Your task to perform on an android device: Turn on the flashlight Image 0: 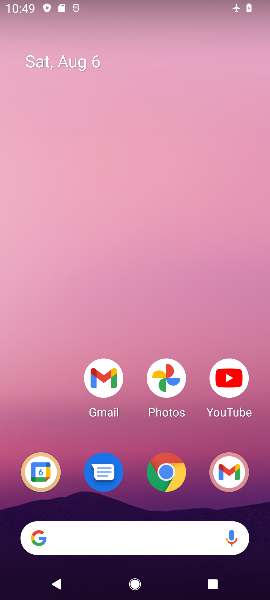
Step 0: press back button
Your task to perform on an android device: Turn on the flashlight Image 1: 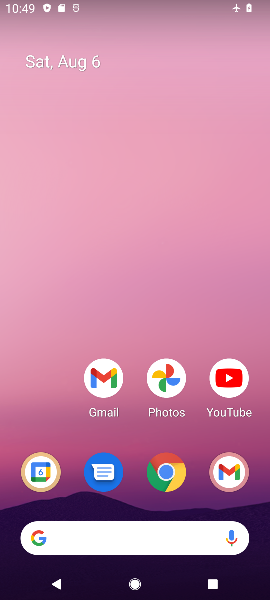
Step 1: drag from (168, 586) to (102, 92)
Your task to perform on an android device: Turn on the flashlight Image 2: 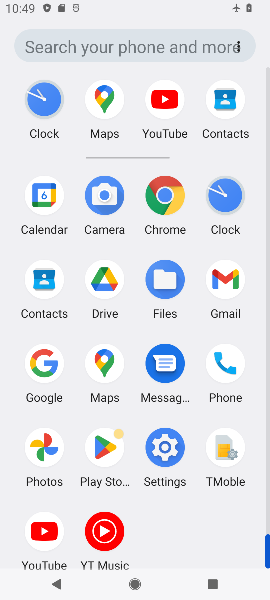
Step 2: click (163, 454)
Your task to perform on an android device: Turn on the flashlight Image 3: 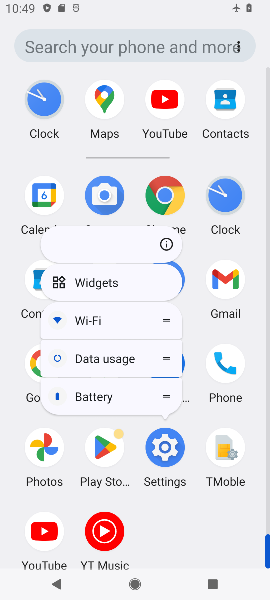
Step 3: click (163, 454)
Your task to perform on an android device: Turn on the flashlight Image 4: 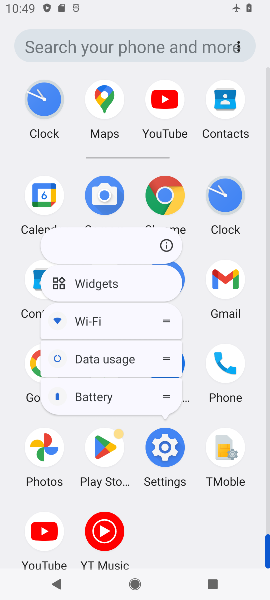
Step 4: click (163, 454)
Your task to perform on an android device: Turn on the flashlight Image 5: 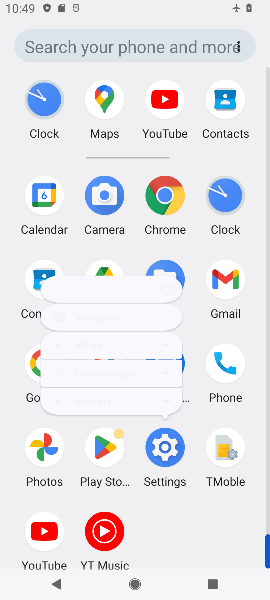
Step 5: click (163, 454)
Your task to perform on an android device: Turn on the flashlight Image 6: 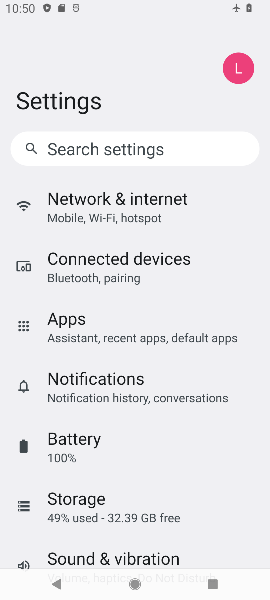
Step 6: click (74, 269)
Your task to perform on an android device: Turn on the flashlight Image 7: 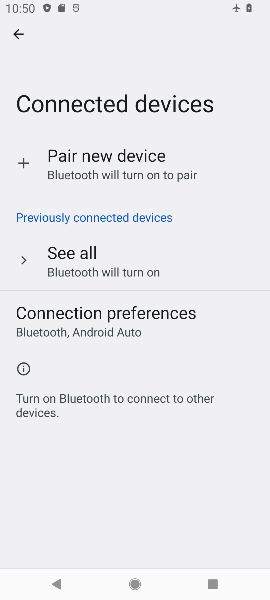
Step 7: click (19, 33)
Your task to perform on an android device: Turn on the flashlight Image 8: 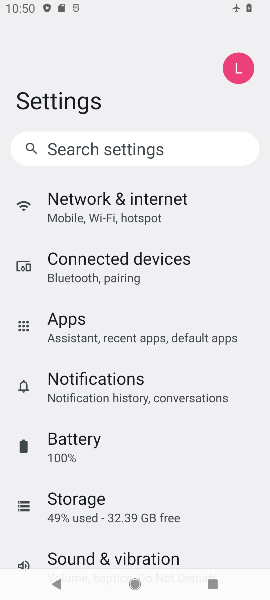
Step 8: drag from (123, 490) to (106, 262)
Your task to perform on an android device: Turn on the flashlight Image 9: 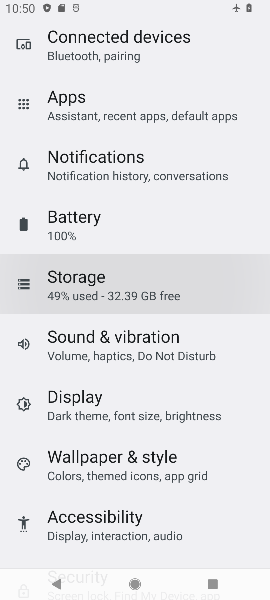
Step 9: drag from (128, 453) to (146, 308)
Your task to perform on an android device: Turn on the flashlight Image 10: 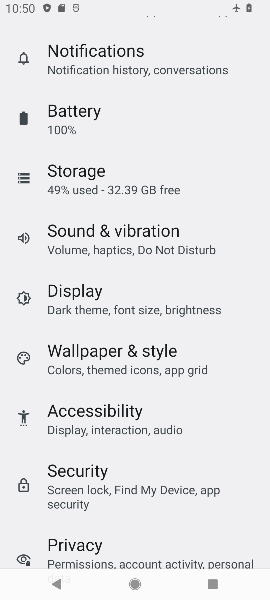
Step 10: drag from (159, 308) to (152, 229)
Your task to perform on an android device: Turn on the flashlight Image 11: 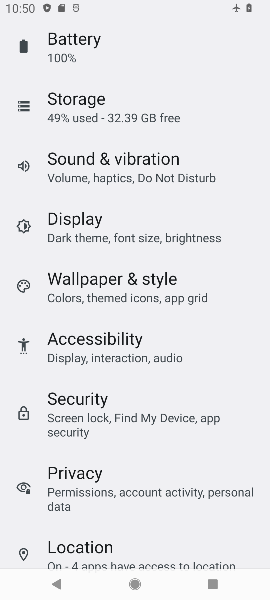
Step 11: drag from (152, 346) to (127, 184)
Your task to perform on an android device: Turn on the flashlight Image 12: 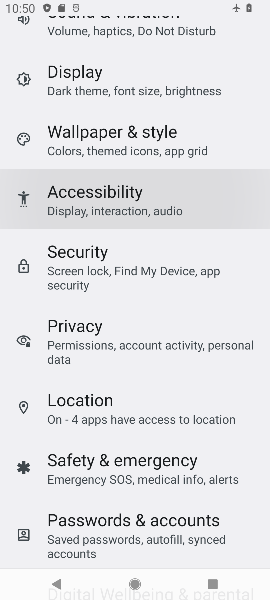
Step 12: drag from (147, 322) to (142, 228)
Your task to perform on an android device: Turn on the flashlight Image 13: 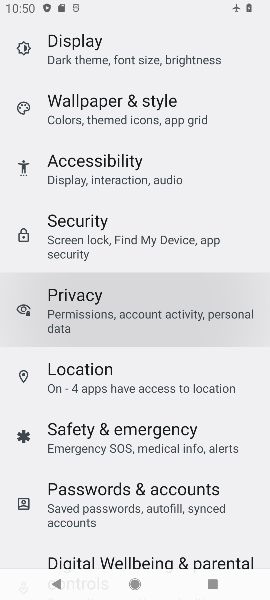
Step 13: drag from (155, 383) to (146, 252)
Your task to perform on an android device: Turn on the flashlight Image 14: 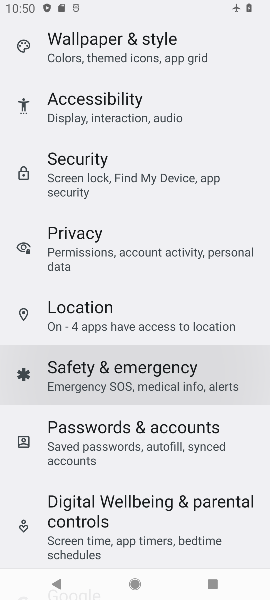
Step 14: drag from (148, 361) to (147, 205)
Your task to perform on an android device: Turn on the flashlight Image 15: 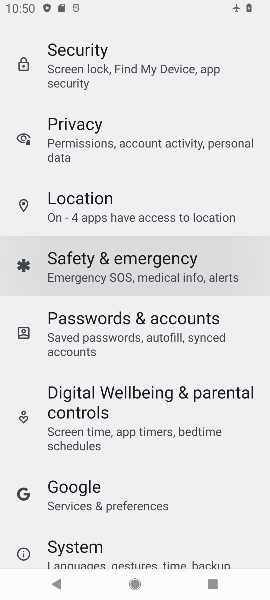
Step 15: drag from (177, 395) to (142, 224)
Your task to perform on an android device: Turn on the flashlight Image 16: 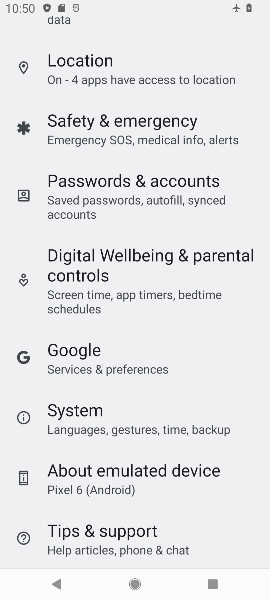
Step 16: drag from (161, 425) to (135, 221)
Your task to perform on an android device: Turn on the flashlight Image 17: 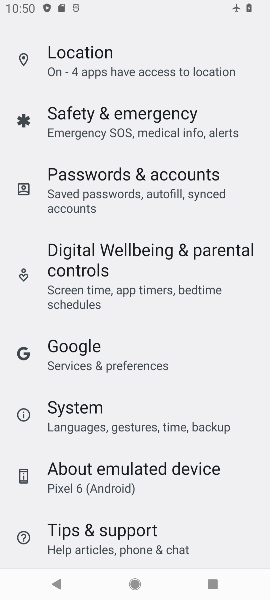
Step 17: drag from (149, 429) to (150, 259)
Your task to perform on an android device: Turn on the flashlight Image 18: 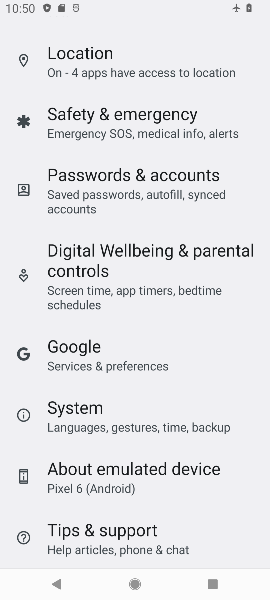
Step 18: drag from (163, 422) to (134, 201)
Your task to perform on an android device: Turn on the flashlight Image 19: 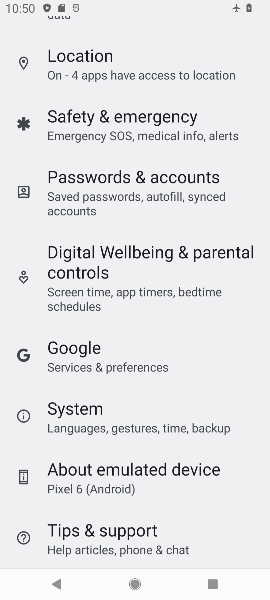
Step 19: drag from (134, 199) to (167, 430)
Your task to perform on an android device: Turn on the flashlight Image 20: 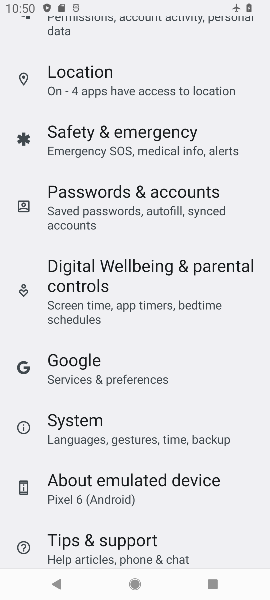
Step 20: drag from (134, 304) to (154, 416)
Your task to perform on an android device: Turn on the flashlight Image 21: 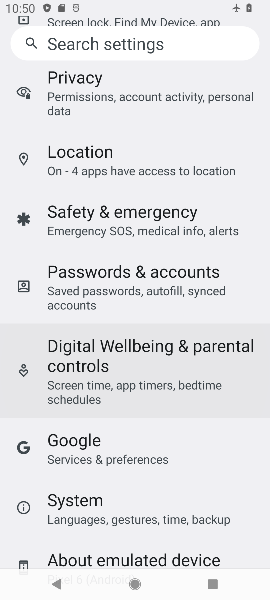
Step 21: drag from (126, 303) to (162, 453)
Your task to perform on an android device: Turn on the flashlight Image 22: 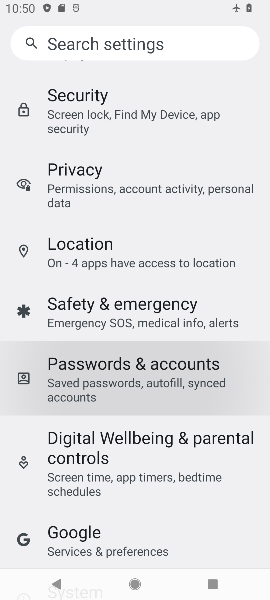
Step 22: drag from (112, 253) to (130, 414)
Your task to perform on an android device: Turn on the flashlight Image 23: 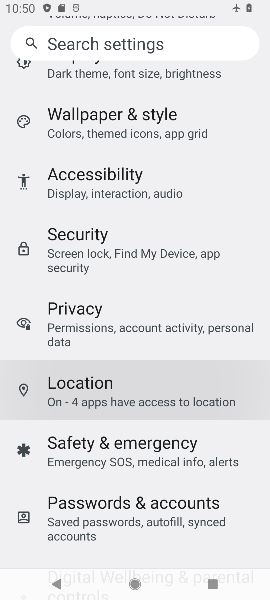
Step 23: drag from (97, 172) to (131, 391)
Your task to perform on an android device: Turn on the flashlight Image 24: 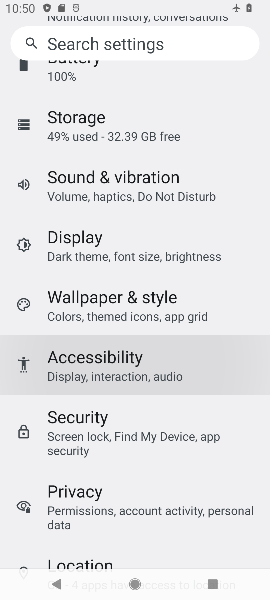
Step 24: drag from (115, 167) to (173, 420)
Your task to perform on an android device: Turn on the flashlight Image 25: 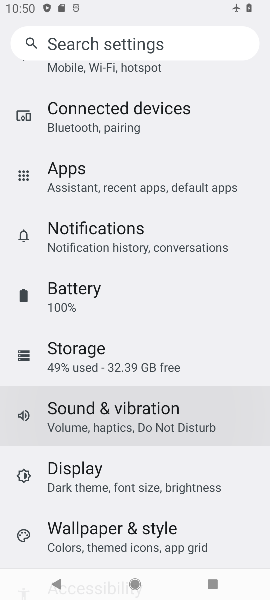
Step 25: drag from (82, 176) to (106, 376)
Your task to perform on an android device: Turn on the flashlight Image 26: 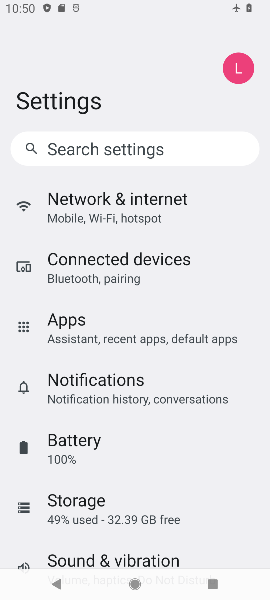
Step 26: drag from (109, 194) to (128, 385)
Your task to perform on an android device: Turn on the flashlight Image 27: 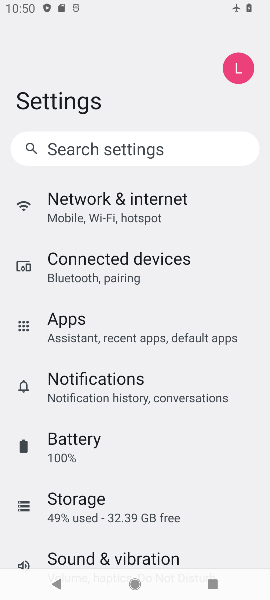
Step 27: click (91, 216)
Your task to perform on an android device: Turn on the flashlight Image 28: 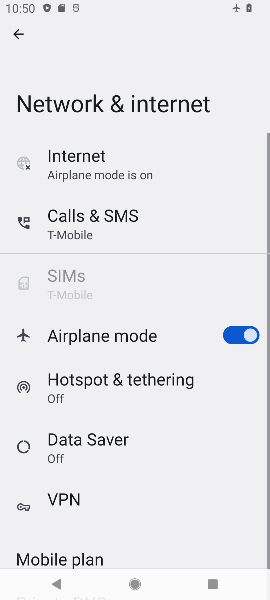
Step 28: drag from (143, 465) to (94, 195)
Your task to perform on an android device: Turn on the flashlight Image 29: 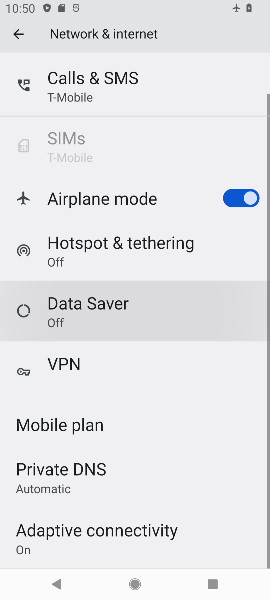
Step 29: drag from (171, 432) to (150, 230)
Your task to perform on an android device: Turn on the flashlight Image 30: 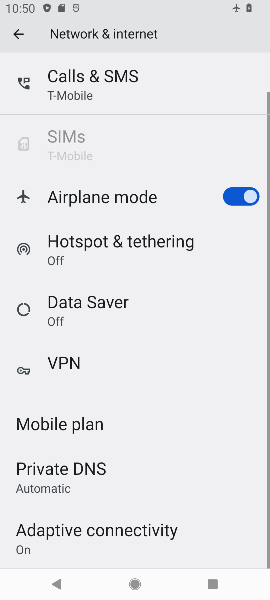
Step 30: drag from (172, 421) to (129, 144)
Your task to perform on an android device: Turn on the flashlight Image 31: 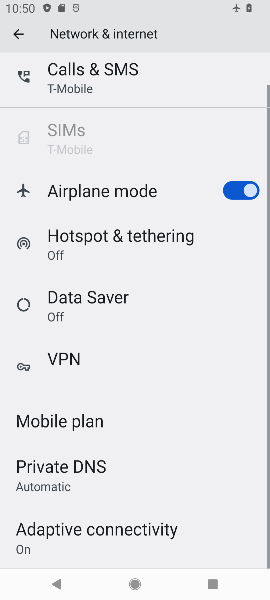
Step 31: drag from (179, 454) to (113, 233)
Your task to perform on an android device: Turn on the flashlight Image 32: 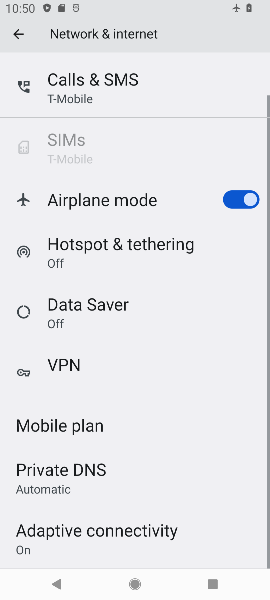
Step 32: drag from (107, 182) to (136, 520)
Your task to perform on an android device: Turn on the flashlight Image 33: 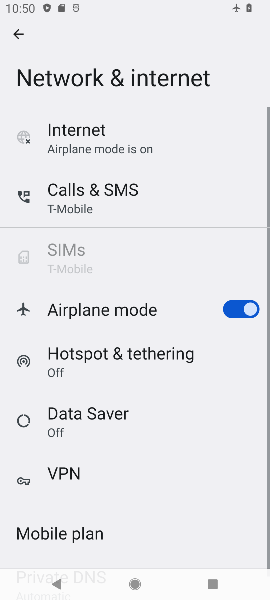
Step 33: drag from (100, 236) to (113, 466)
Your task to perform on an android device: Turn on the flashlight Image 34: 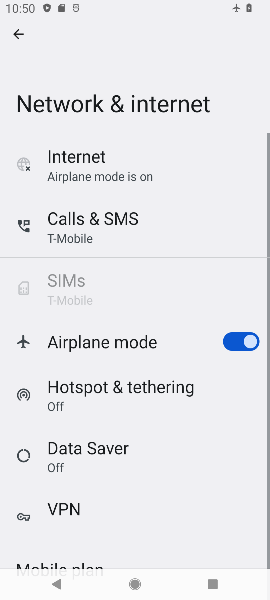
Step 34: drag from (80, 187) to (140, 591)
Your task to perform on an android device: Turn on the flashlight Image 35: 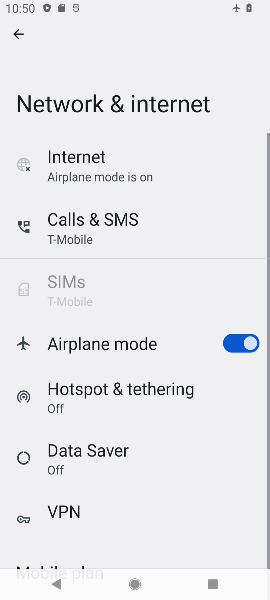
Step 35: drag from (94, 218) to (124, 400)
Your task to perform on an android device: Turn on the flashlight Image 36: 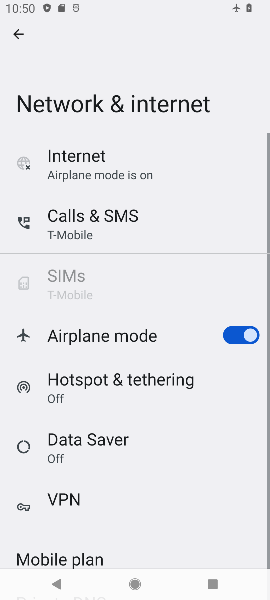
Step 36: click (23, 31)
Your task to perform on an android device: Turn on the flashlight Image 37: 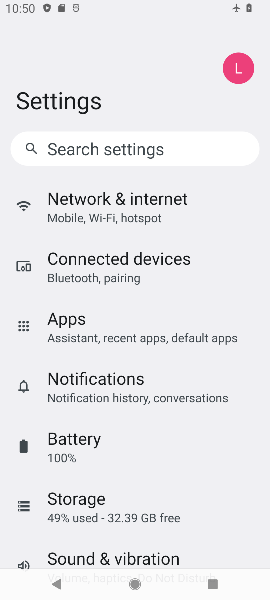
Step 37: task complete